Your task to perform on an android device: uninstall "Google Home" Image 0: 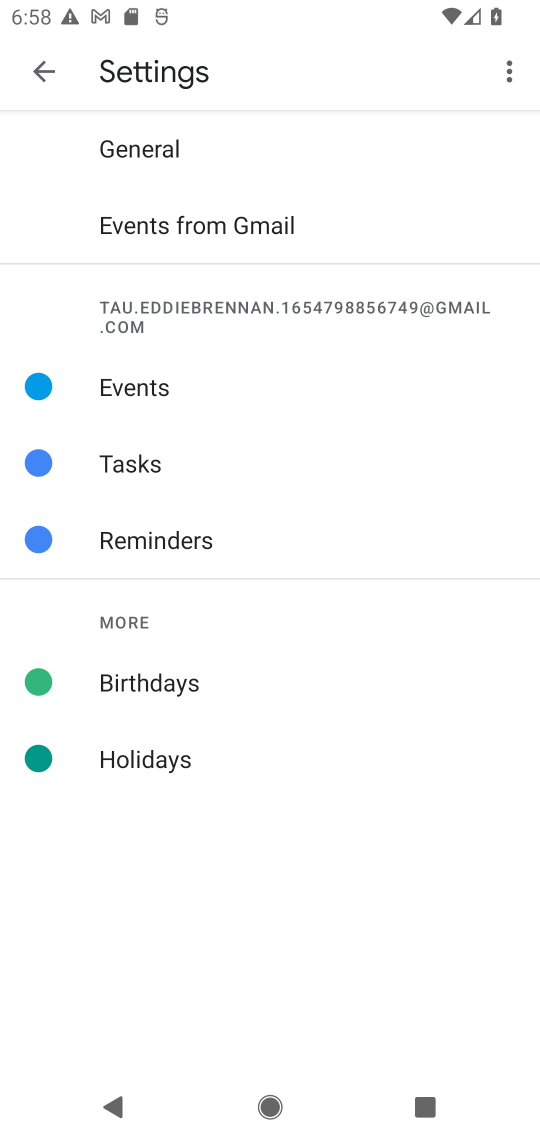
Step 0: press home button
Your task to perform on an android device: uninstall "Google Home" Image 1: 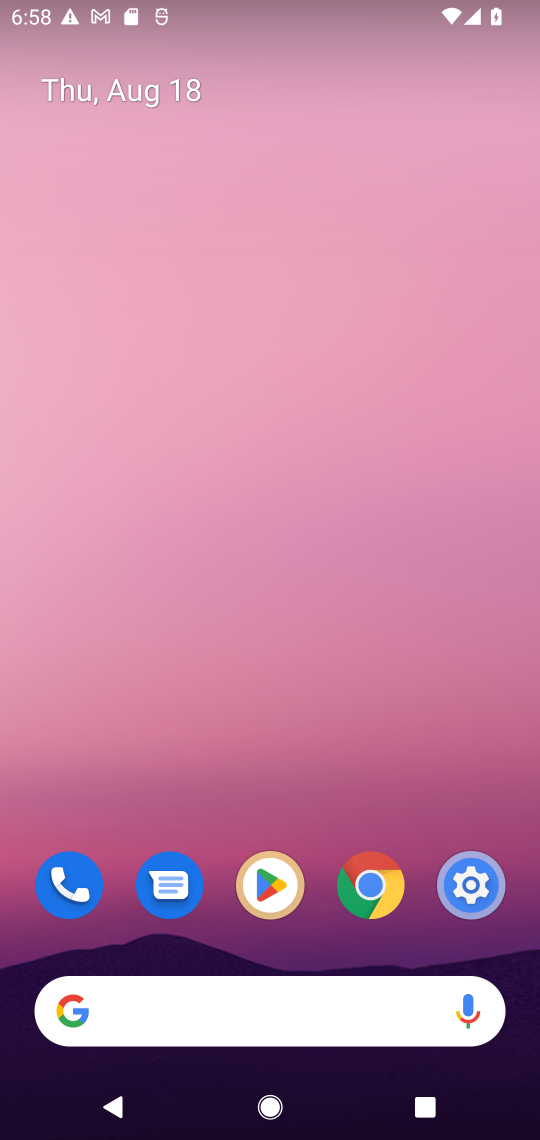
Step 1: drag from (218, 762) to (176, 191)
Your task to perform on an android device: uninstall "Google Home" Image 2: 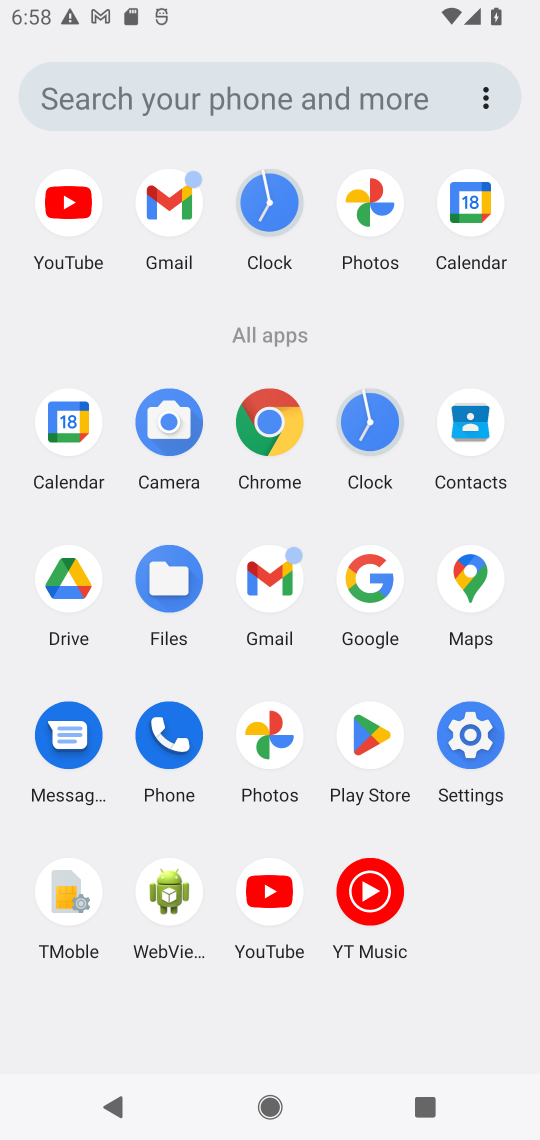
Step 2: click (178, 95)
Your task to perform on an android device: uninstall "Google Home" Image 3: 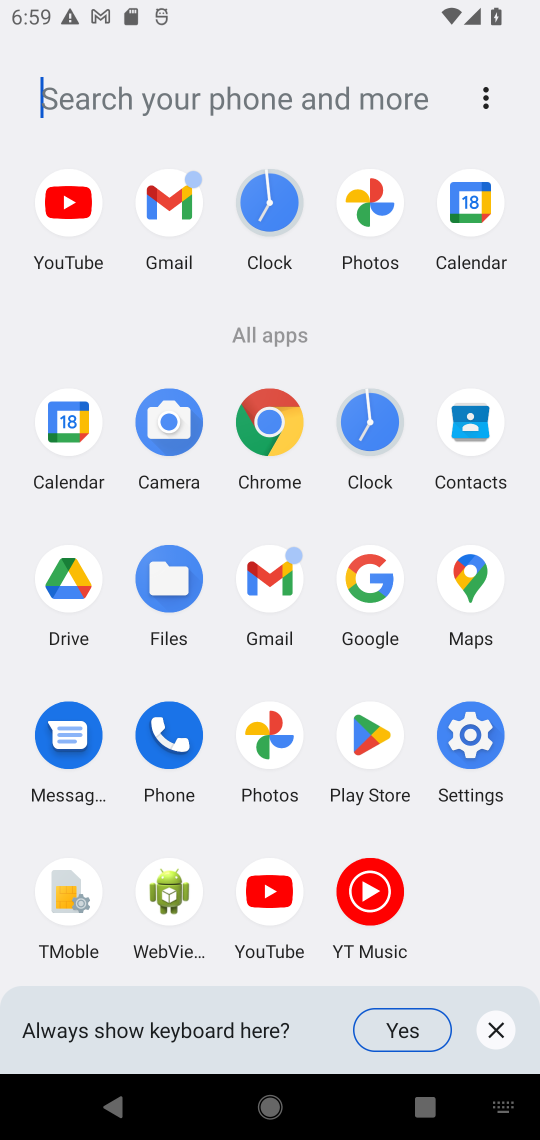
Step 3: type "Google Home"
Your task to perform on an android device: uninstall "Google Home" Image 4: 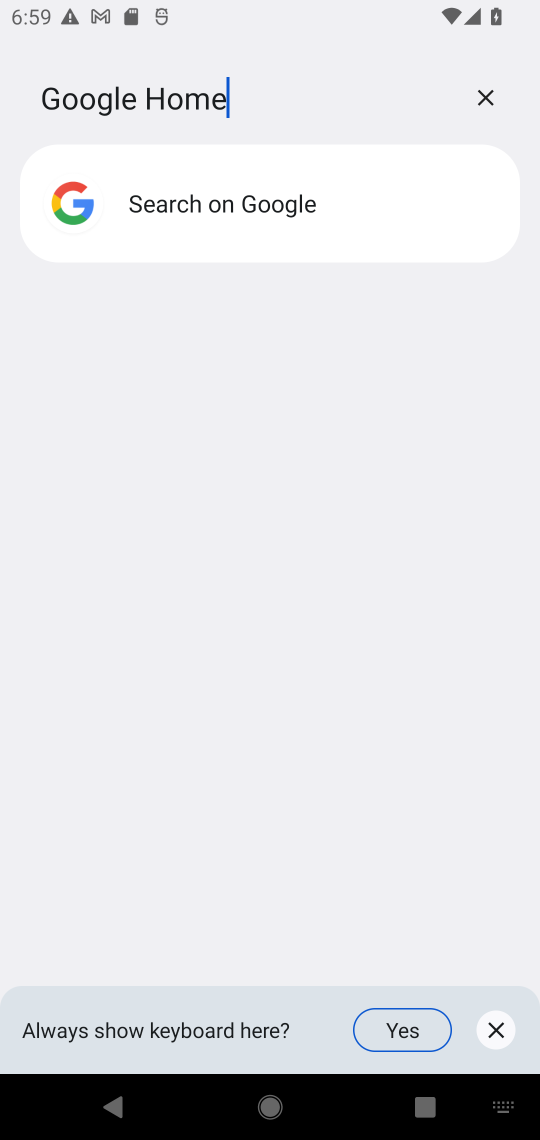
Step 4: click (489, 91)
Your task to perform on an android device: uninstall "Google Home" Image 5: 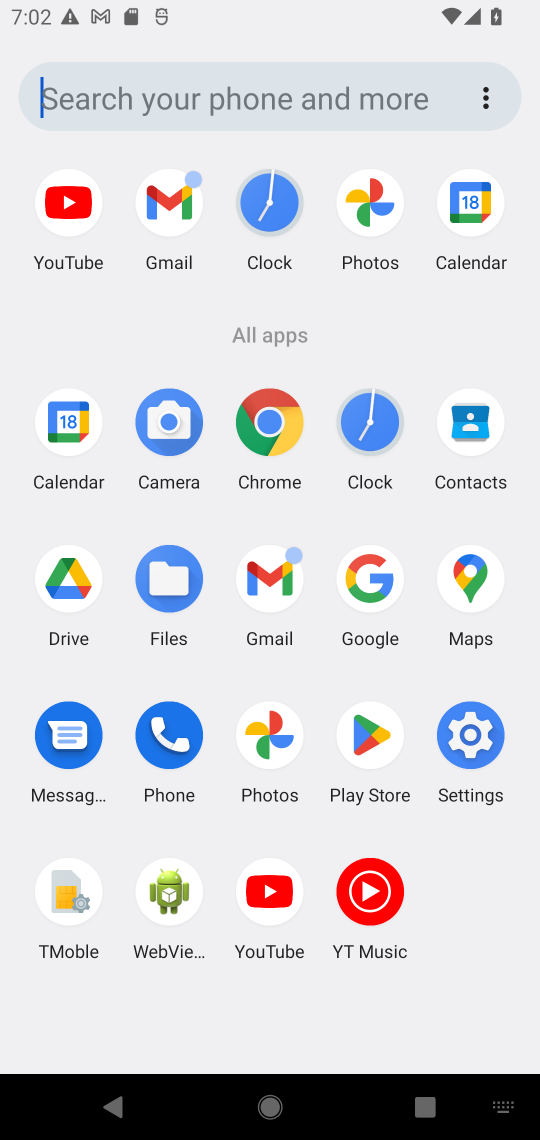
Step 5: click (370, 722)
Your task to perform on an android device: uninstall "Google Home" Image 6: 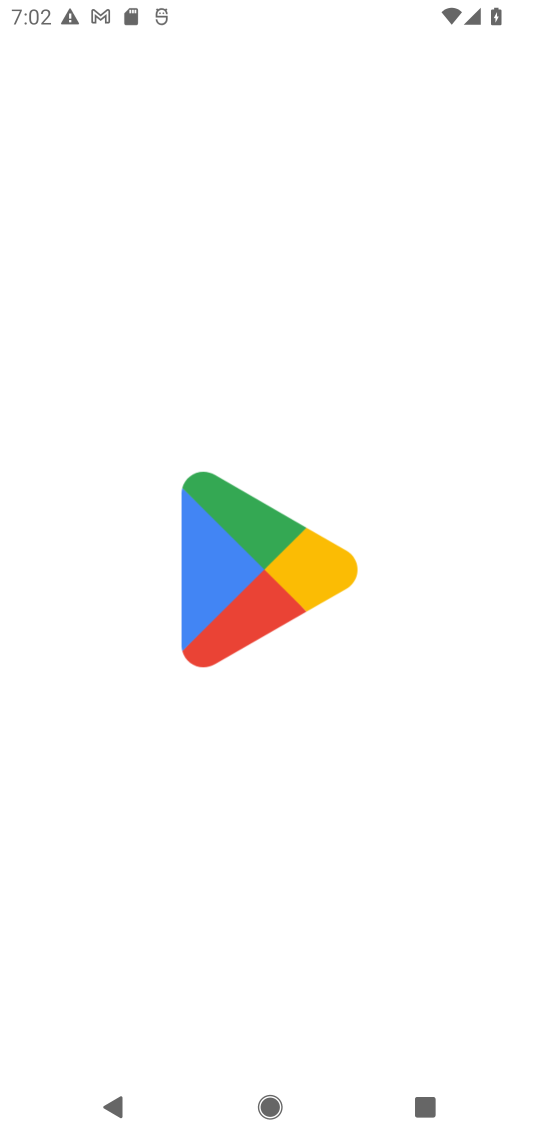
Step 6: task complete